Your task to perform on an android device: Add "razer blade" to the cart on ebay.com Image 0: 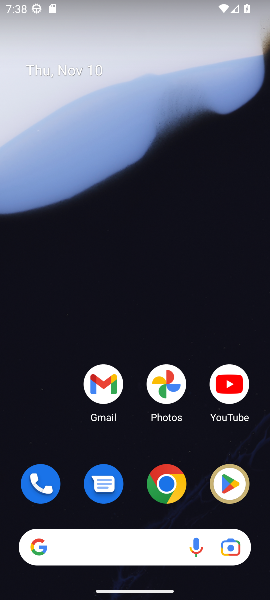
Step 0: click (172, 486)
Your task to perform on an android device: Add "razer blade" to the cart on ebay.com Image 1: 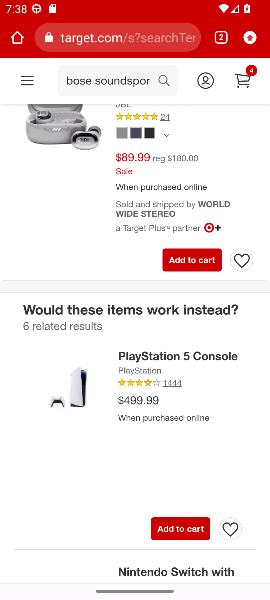
Step 1: click (107, 41)
Your task to perform on an android device: Add "razer blade" to the cart on ebay.com Image 2: 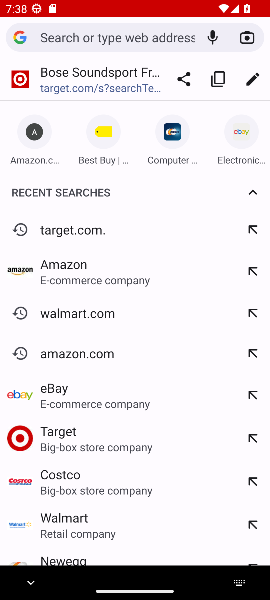
Step 2: type "ebay.com"
Your task to perform on an android device: Add "razer blade" to the cart on ebay.com Image 3: 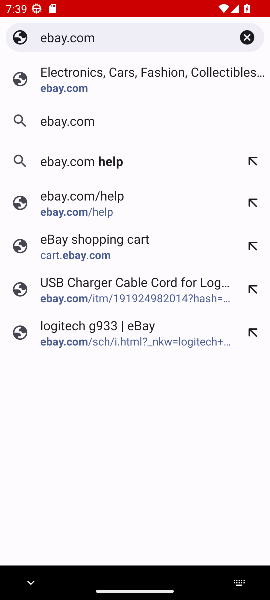
Step 3: click (55, 91)
Your task to perform on an android device: Add "razer blade" to the cart on ebay.com Image 4: 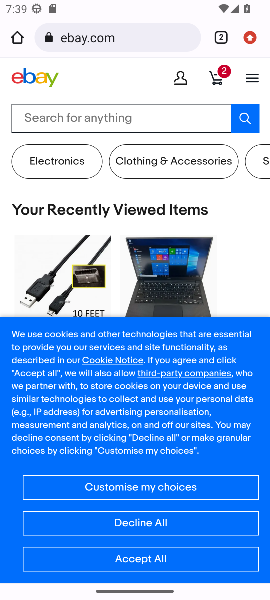
Step 4: click (73, 122)
Your task to perform on an android device: Add "razer blade" to the cart on ebay.com Image 5: 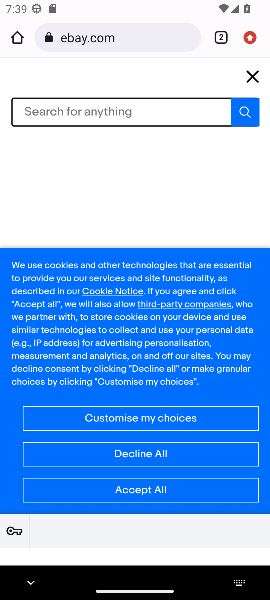
Step 5: type "razer blade"
Your task to perform on an android device: Add "razer blade" to the cart on ebay.com Image 6: 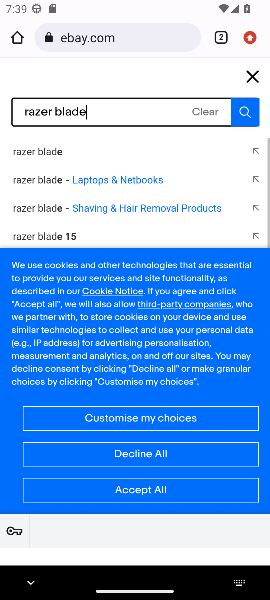
Step 6: click (32, 152)
Your task to perform on an android device: Add "razer blade" to the cart on ebay.com Image 7: 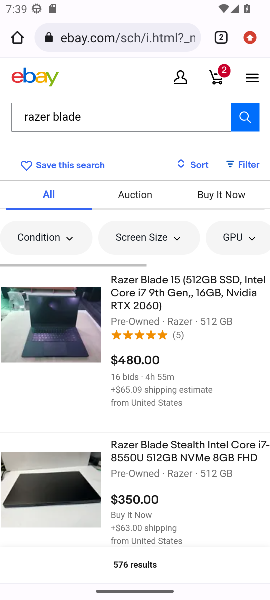
Step 7: click (63, 339)
Your task to perform on an android device: Add "razer blade" to the cart on ebay.com Image 8: 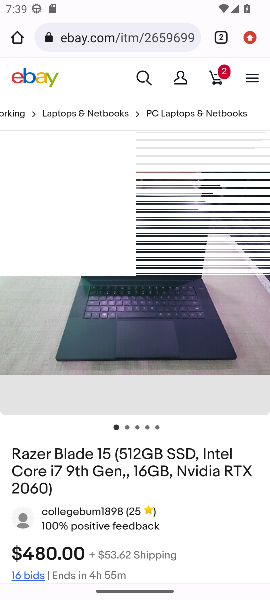
Step 8: drag from (101, 449) to (95, 245)
Your task to perform on an android device: Add "razer blade" to the cart on ebay.com Image 9: 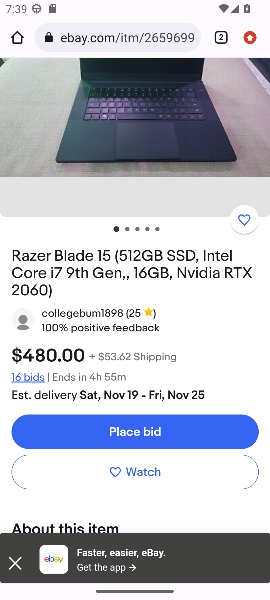
Step 9: press back button
Your task to perform on an android device: Add "razer blade" to the cart on ebay.com Image 10: 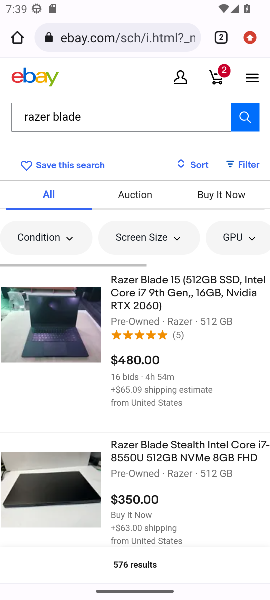
Step 10: drag from (127, 357) to (127, 261)
Your task to perform on an android device: Add "razer blade" to the cart on ebay.com Image 11: 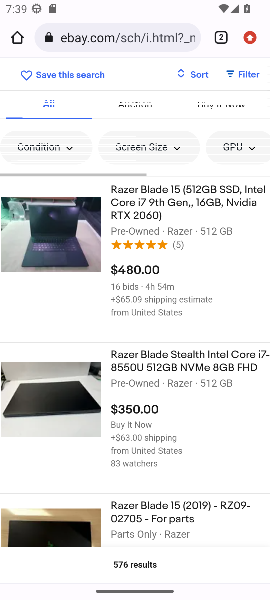
Step 11: click (57, 409)
Your task to perform on an android device: Add "razer blade" to the cart on ebay.com Image 12: 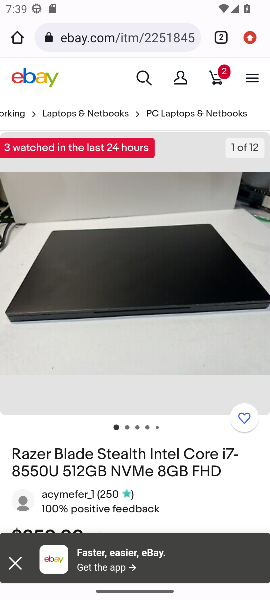
Step 12: drag from (57, 409) to (85, 234)
Your task to perform on an android device: Add "razer blade" to the cart on ebay.com Image 13: 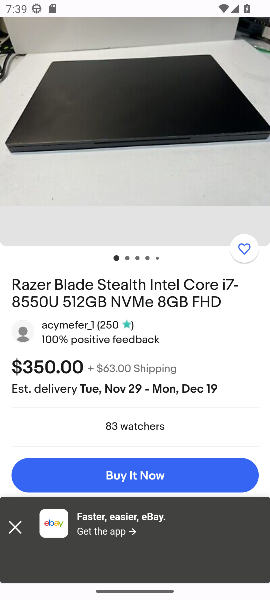
Step 13: drag from (97, 477) to (98, 309)
Your task to perform on an android device: Add "razer blade" to the cart on ebay.com Image 14: 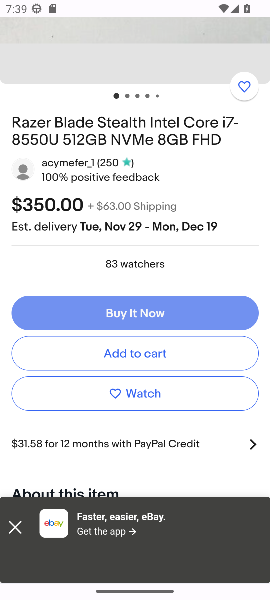
Step 14: click (99, 349)
Your task to perform on an android device: Add "razer blade" to the cart on ebay.com Image 15: 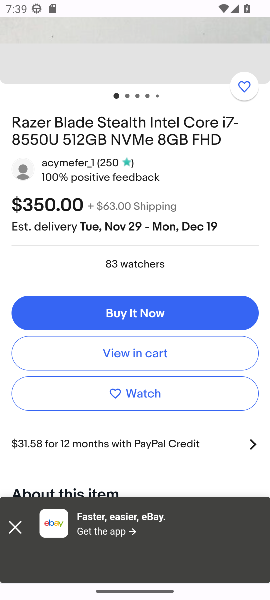
Step 15: task complete